Your task to perform on an android device: View the shopping cart on newegg. Search for "lenovo thinkpad" on newegg, select the first entry, and add it to the cart. Image 0: 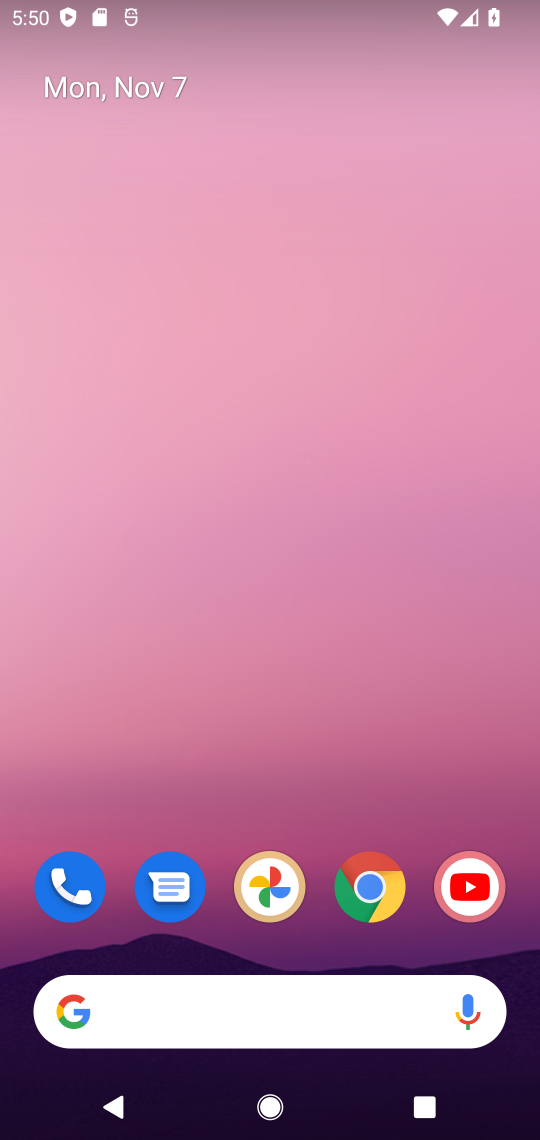
Step 0: click (375, 896)
Your task to perform on an android device: View the shopping cart on newegg. Search for "lenovo thinkpad" on newegg, select the first entry, and add it to the cart. Image 1: 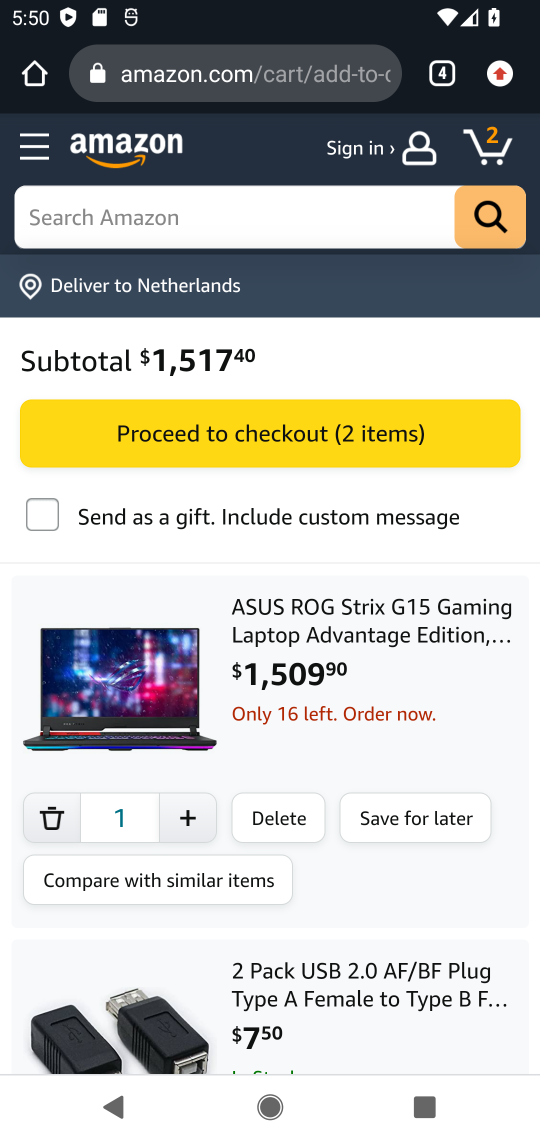
Step 1: click (446, 80)
Your task to perform on an android device: View the shopping cart on newegg. Search for "lenovo thinkpad" on newegg, select the first entry, and add it to the cart. Image 2: 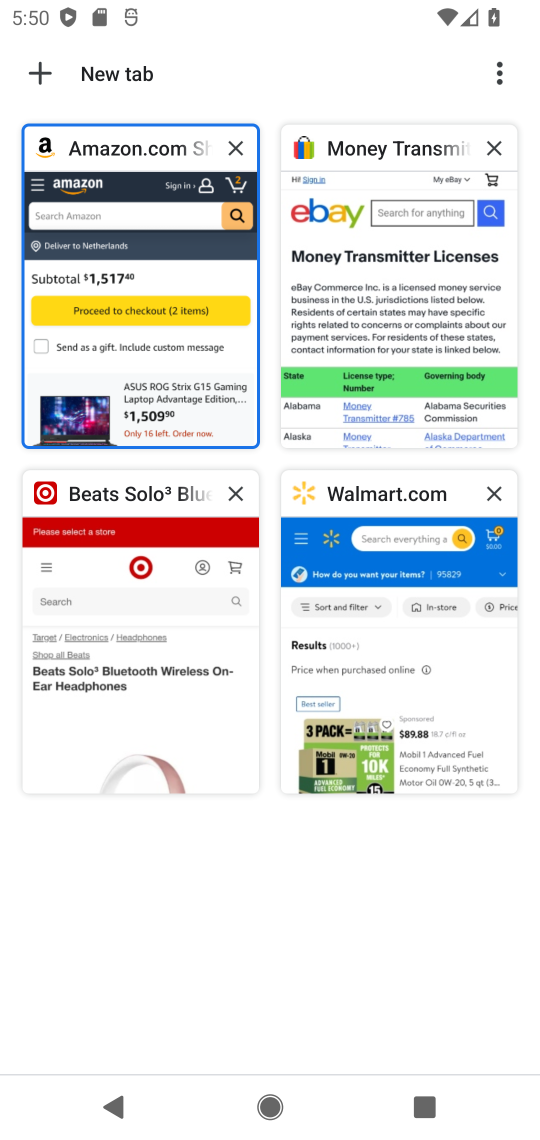
Step 2: click (35, 65)
Your task to perform on an android device: View the shopping cart on newegg. Search for "lenovo thinkpad" on newegg, select the first entry, and add it to the cart. Image 3: 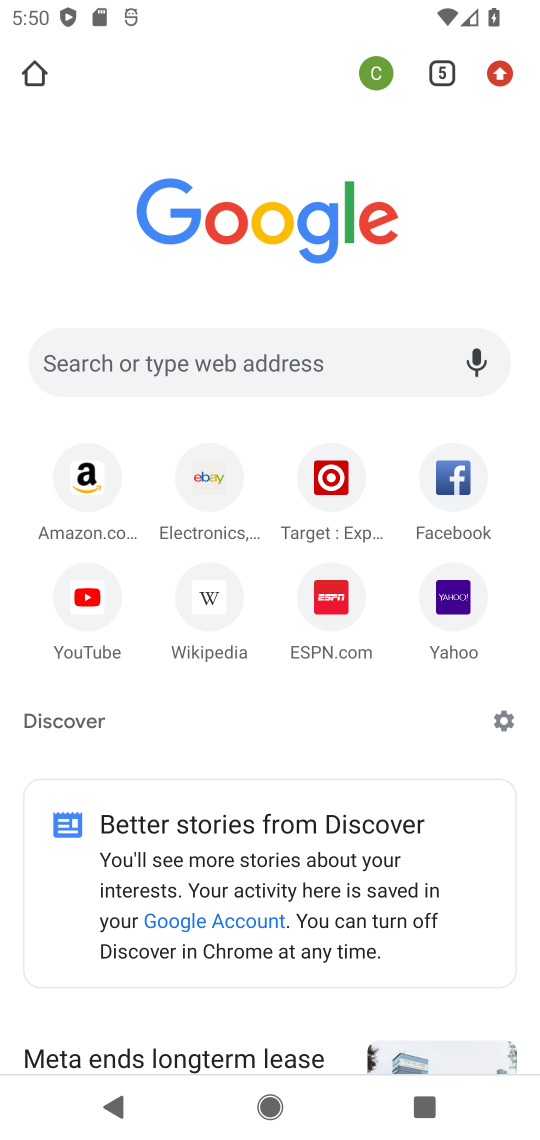
Step 3: click (258, 354)
Your task to perform on an android device: View the shopping cart on newegg. Search for "lenovo thinkpad" on newegg, select the first entry, and add it to the cart. Image 4: 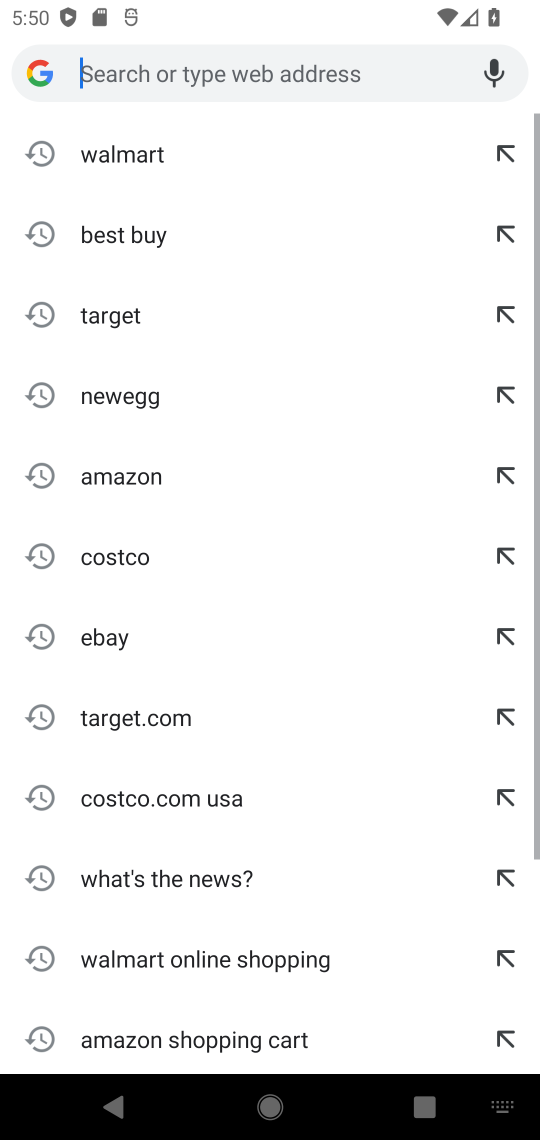
Step 4: click (107, 389)
Your task to perform on an android device: View the shopping cart on newegg. Search for "lenovo thinkpad" on newegg, select the first entry, and add it to the cart. Image 5: 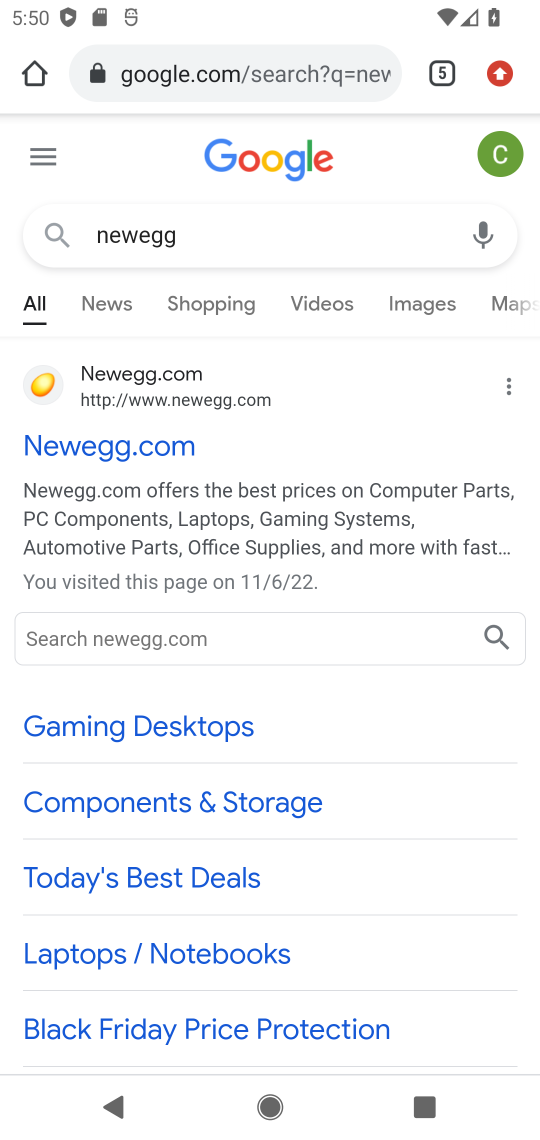
Step 5: click (77, 646)
Your task to perform on an android device: View the shopping cart on newegg. Search for "lenovo thinkpad" on newegg, select the first entry, and add it to the cart. Image 6: 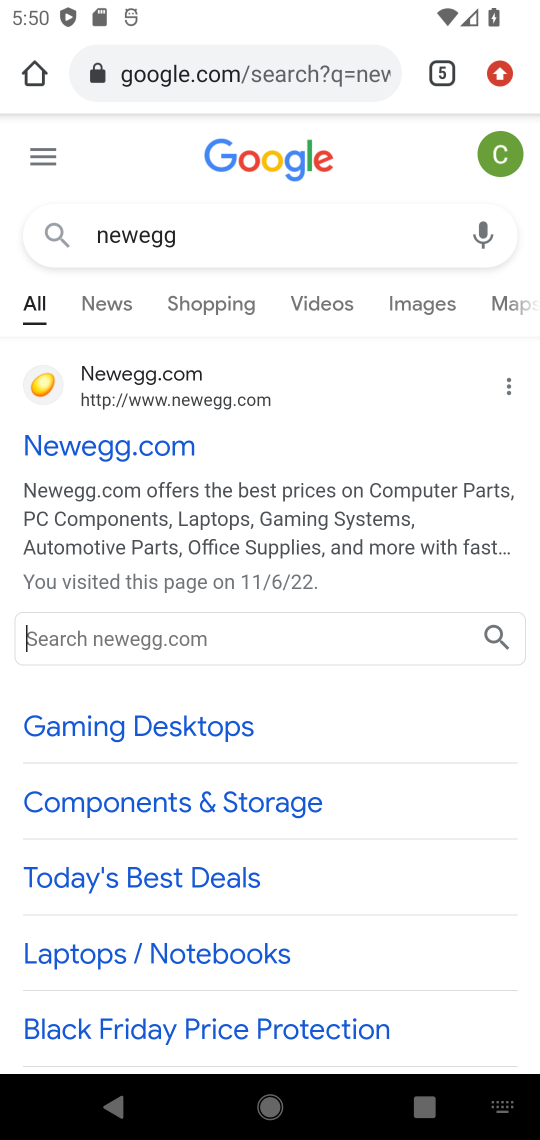
Step 6: type "lenovo thinkpad"
Your task to perform on an android device: View the shopping cart on newegg. Search for "lenovo thinkpad" on newegg, select the first entry, and add it to the cart. Image 7: 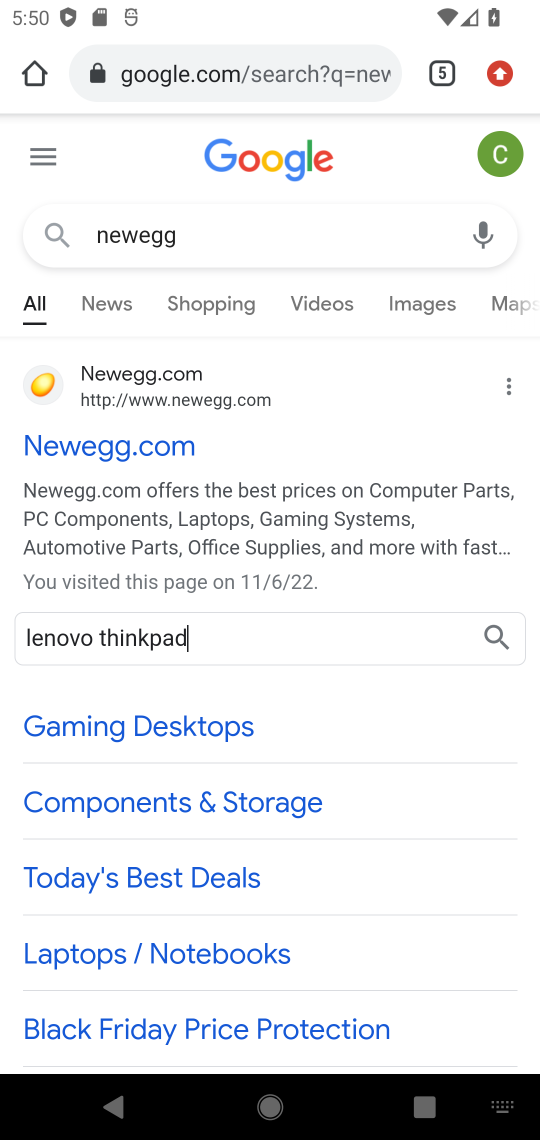
Step 7: click (497, 636)
Your task to perform on an android device: View the shopping cart on newegg. Search for "lenovo thinkpad" on newegg, select the first entry, and add it to the cart. Image 8: 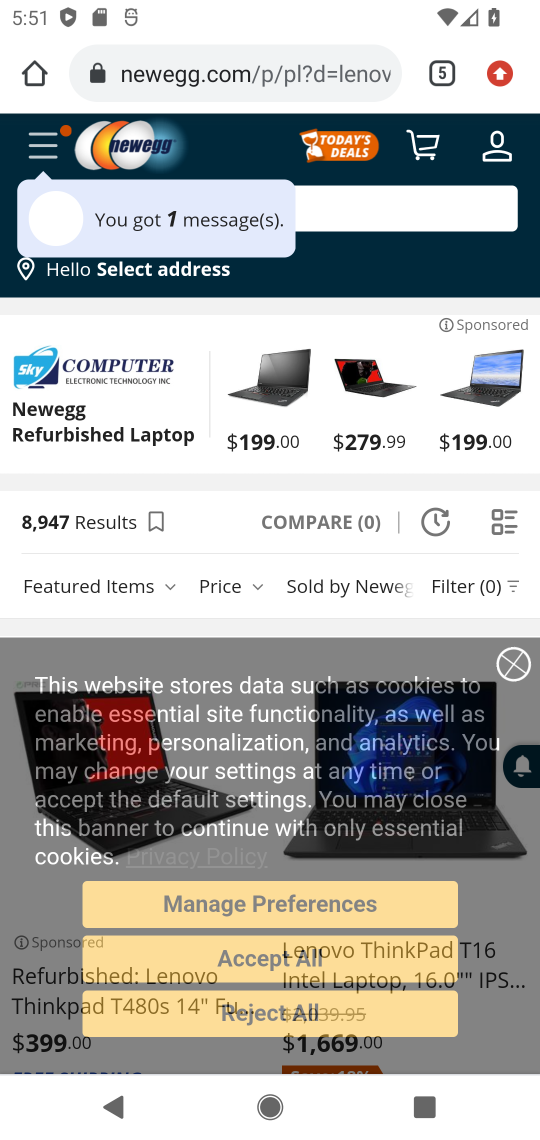
Step 8: click (365, 956)
Your task to perform on an android device: View the shopping cart on newegg. Search for "lenovo thinkpad" on newegg, select the first entry, and add it to the cart. Image 9: 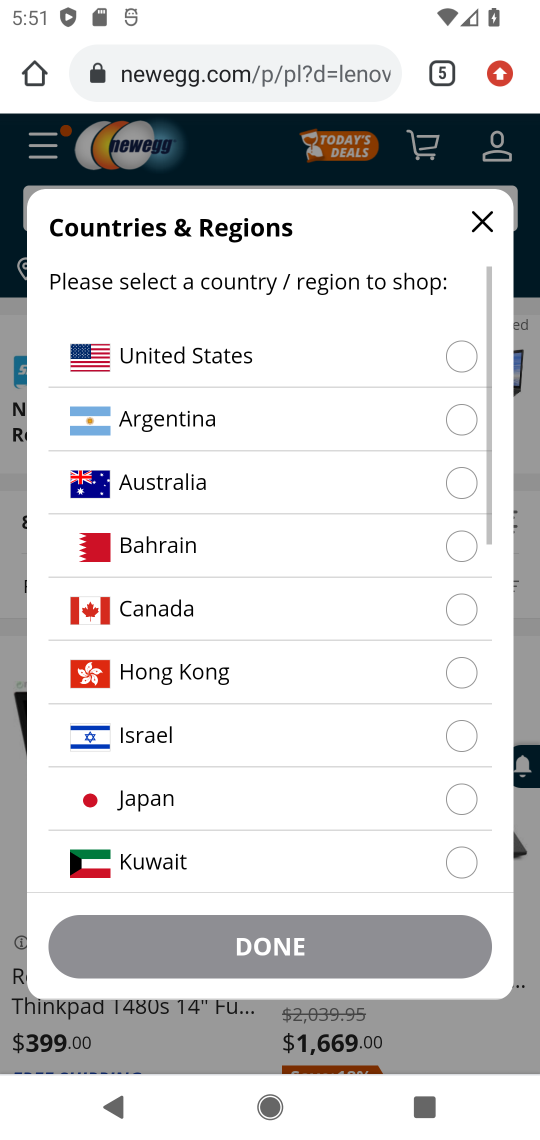
Step 9: click (459, 355)
Your task to perform on an android device: View the shopping cart on newegg. Search for "lenovo thinkpad" on newegg, select the first entry, and add it to the cart. Image 10: 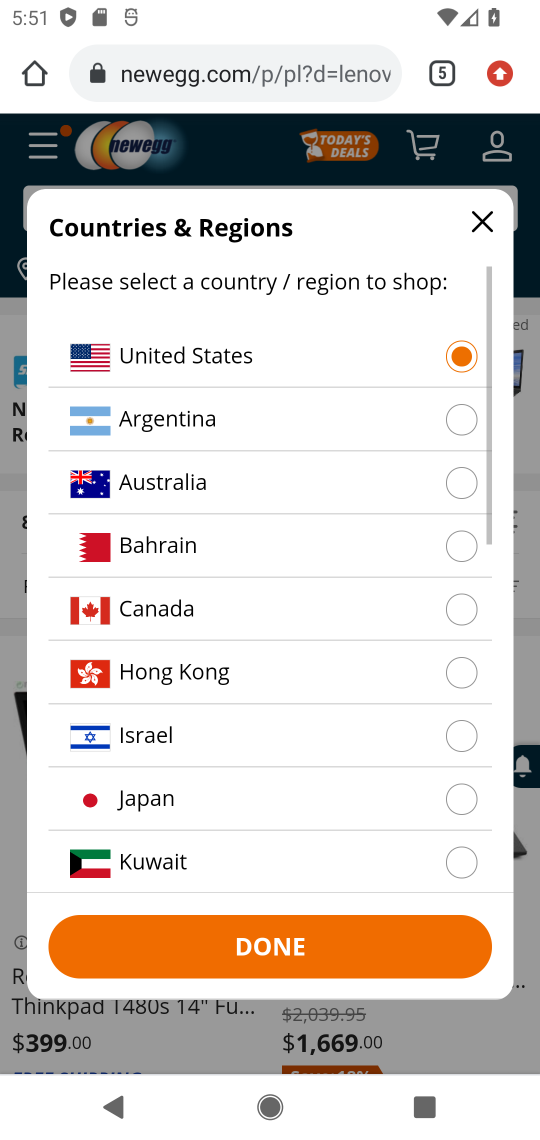
Step 10: click (224, 941)
Your task to perform on an android device: View the shopping cart on newegg. Search for "lenovo thinkpad" on newegg, select the first entry, and add it to the cart. Image 11: 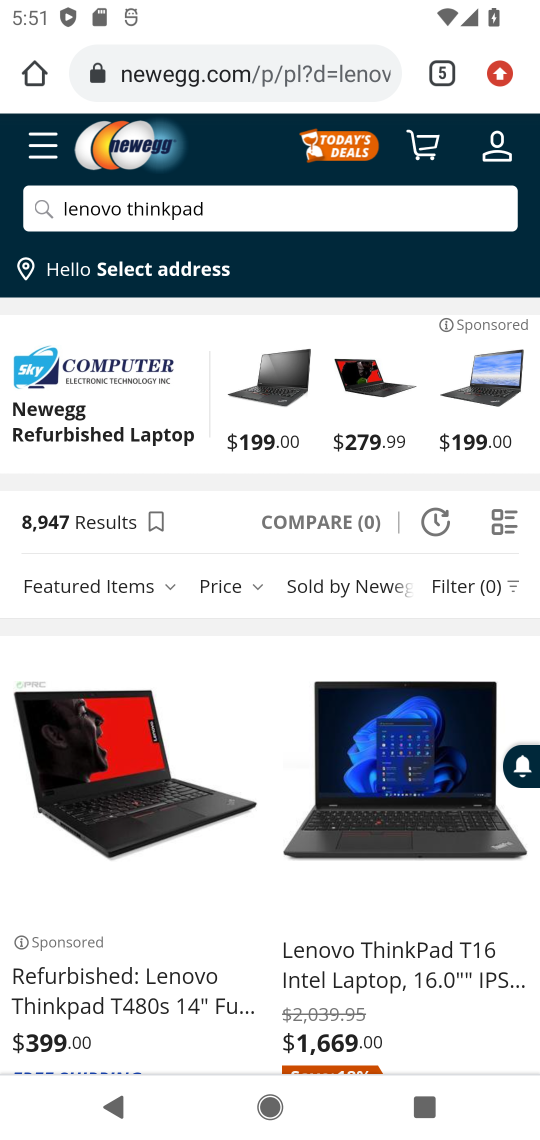
Step 11: click (369, 962)
Your task to perform on an android device: View the shopping cart on newegg. Search for "lenovo thinkpad" on newegg, select the first entry, and add it to the cart. Image 12: 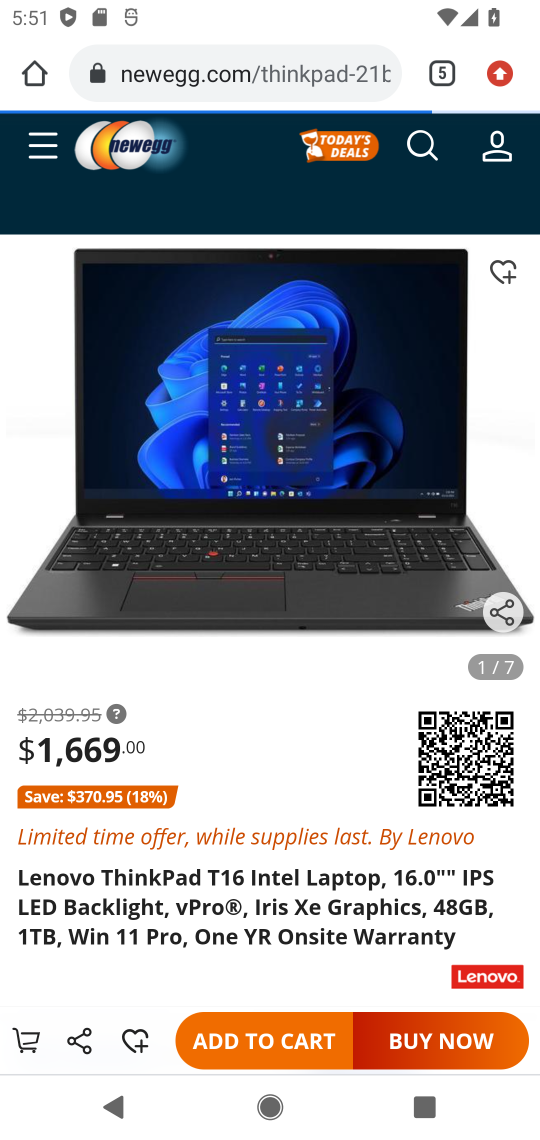
Step 12: drag from (396, 1009) to (413, 669)
Your task to perform on an android device: View the shopping cart on newegg. Search for "lenovo thinkpad" on newegg, select the first entry, and add it to the cart. Image 13: 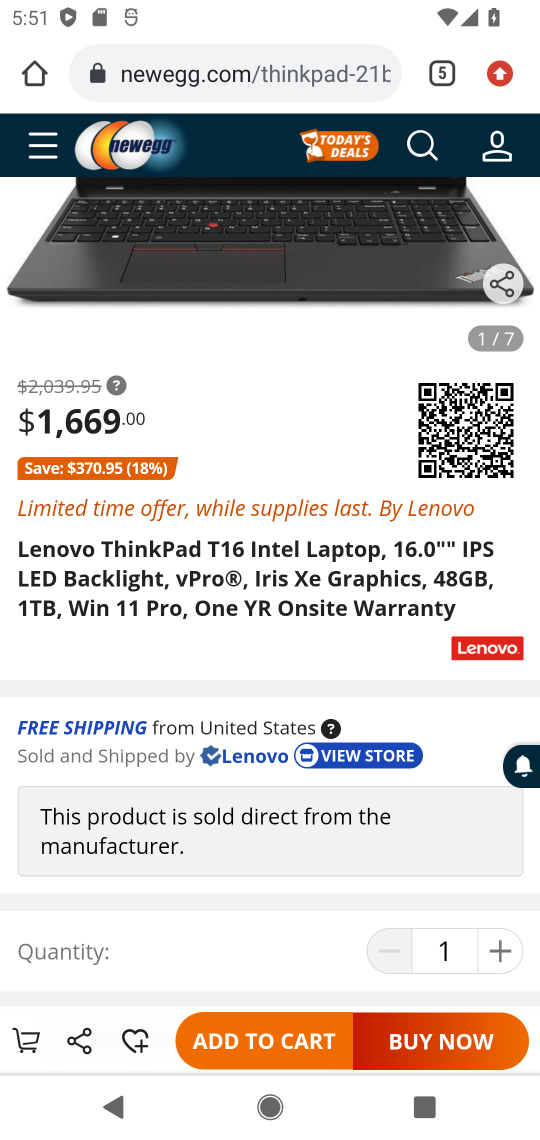
Step 13: click (294, 1039)
Your task to perform on an android device: View the shopping cart on newegg. Search for "lenovo thinkpad" on newegg, select the first entry, and add it to the cart. Image 14: 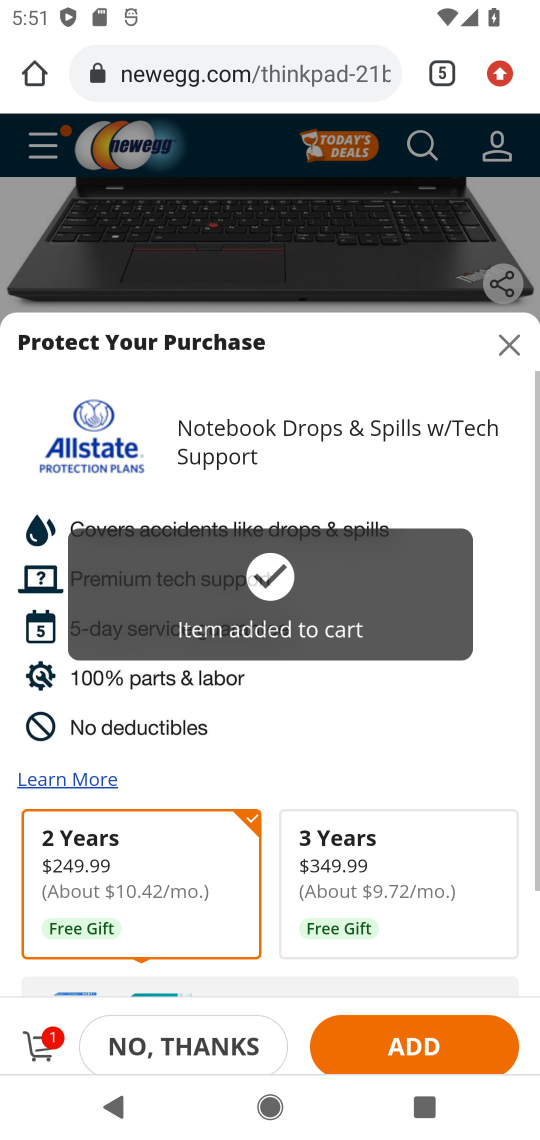
Step 14: task complete